Your task to perform on an android device: open wifi settings Image 0: 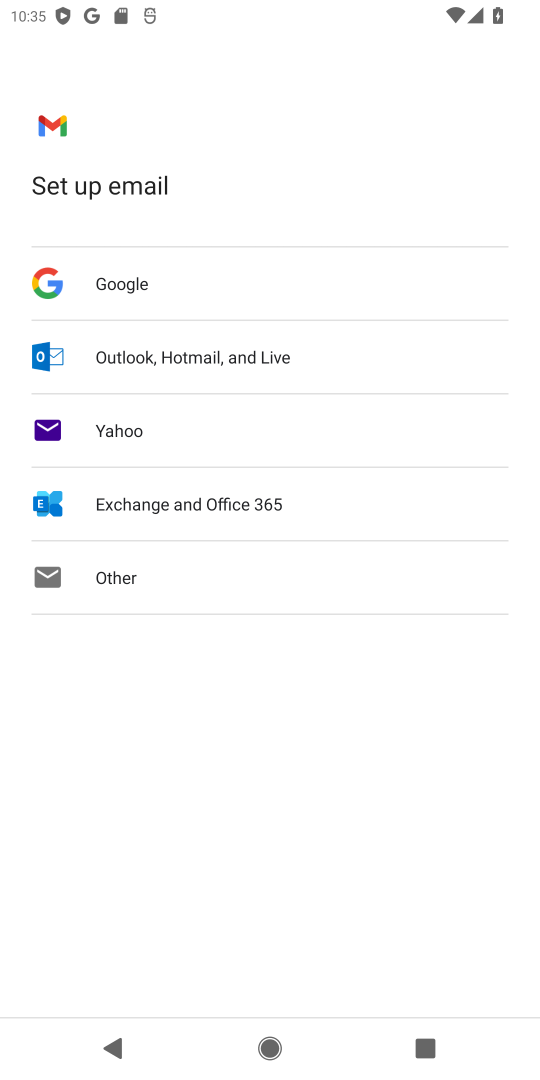
Step 0: press home button
Your task to perform on an android device: open wifi settings Image 1: 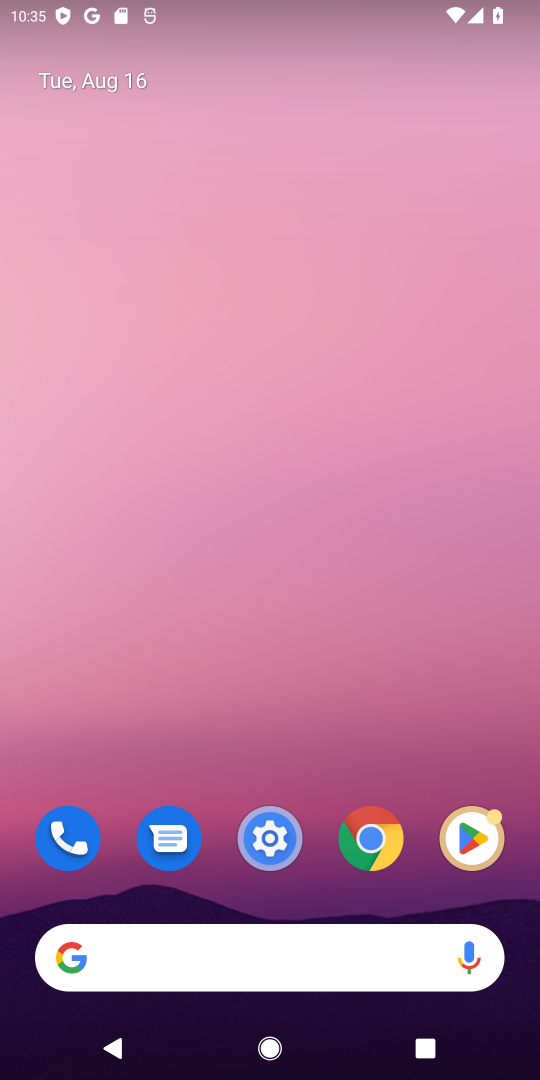
Step 1: click (270, 860)
Your task to perform on an android device: open wifi settings Image 2: 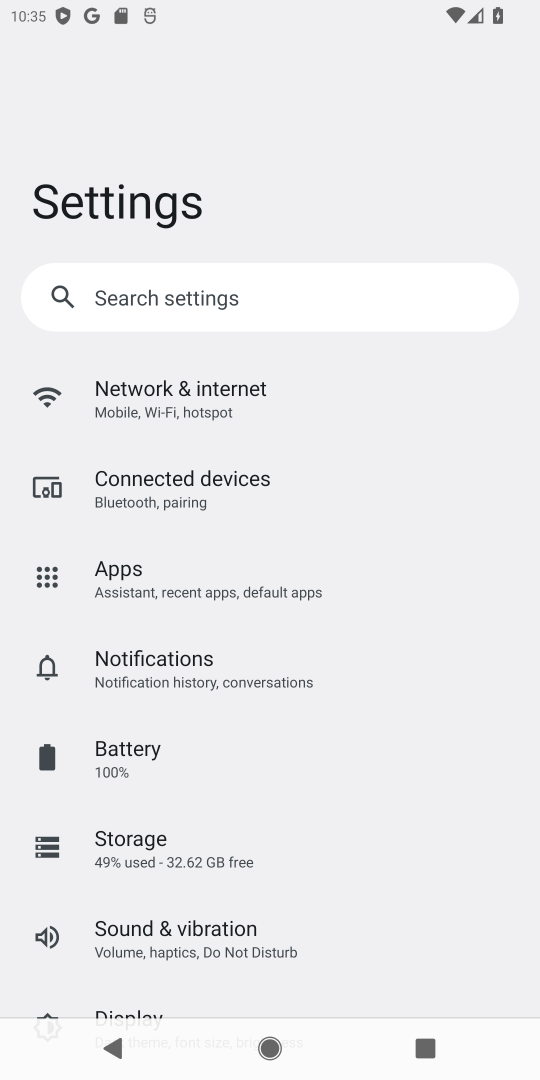
Step 2: click (193, 400)
Your task to perform on an android device: open wifi settings Image 3: 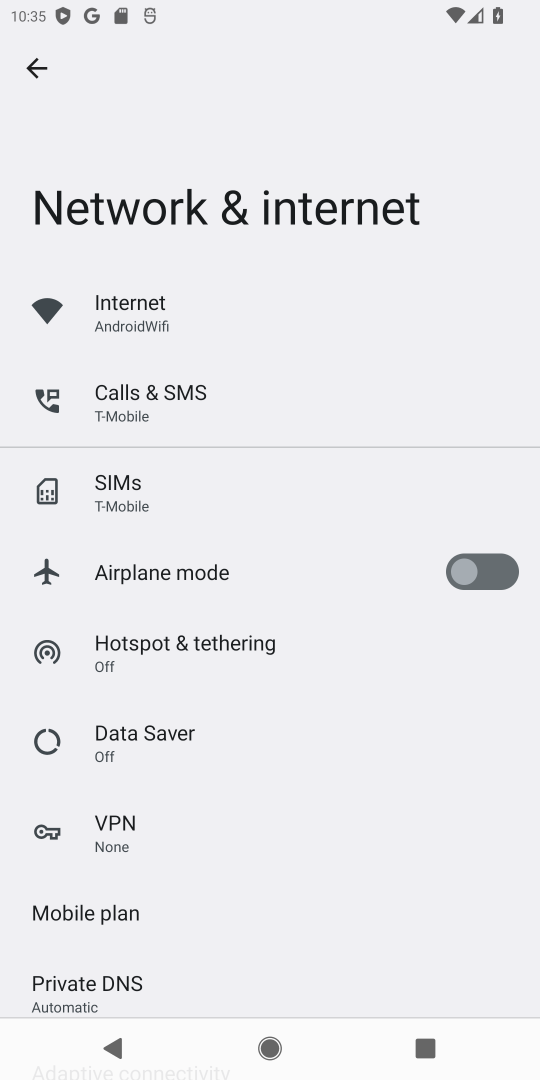
Step 3: click (129, 321)
Your task to perform on an android device: open wifi settings Image 4: 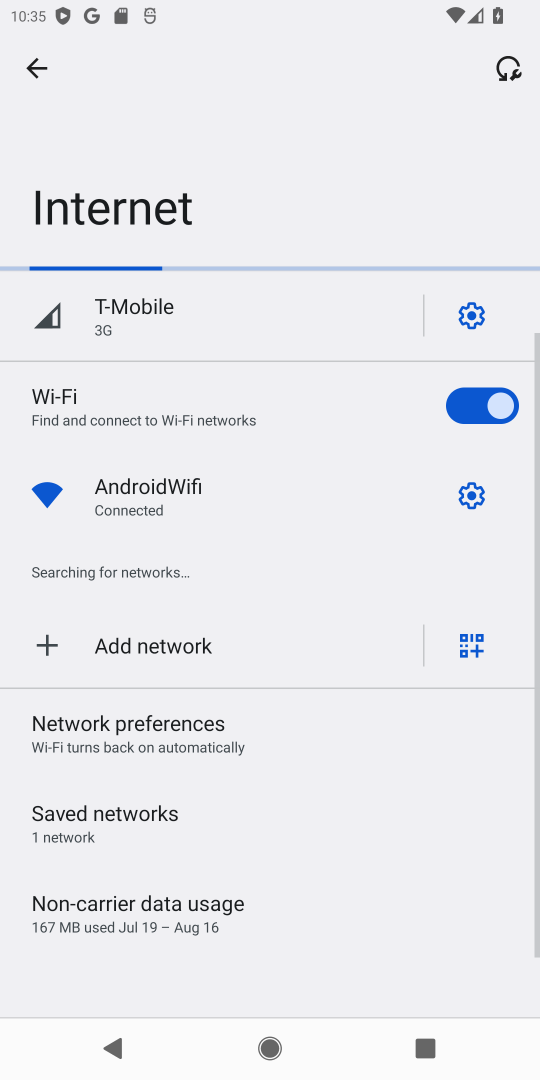
Step 4: click (146, 503)
Your task to perform on an android device: open wifi settings Image 5: 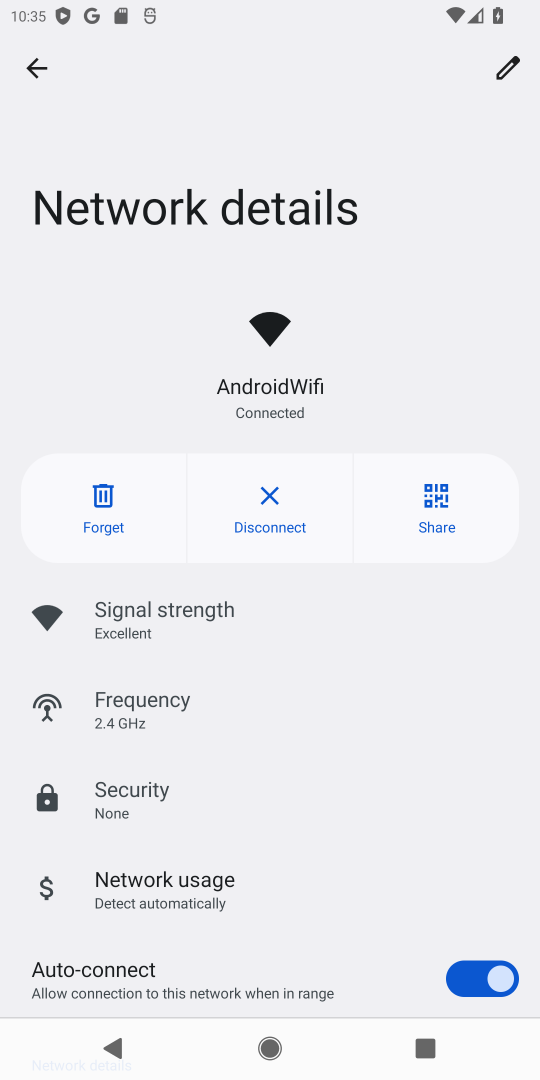
Step 5: task complete